Your task to perform on an android device: Play the last video I watched on Youtube Image 0: 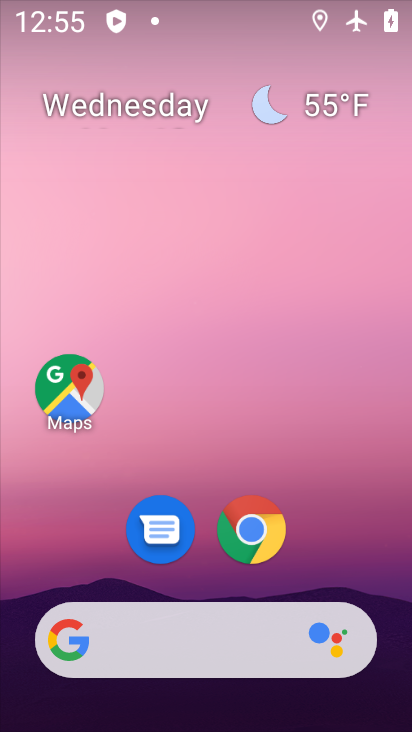
Step 0: drag from (163, 728) to (173, 216)
Your task to perform on an android device: Play the last video I watched on Youtube Image 1: 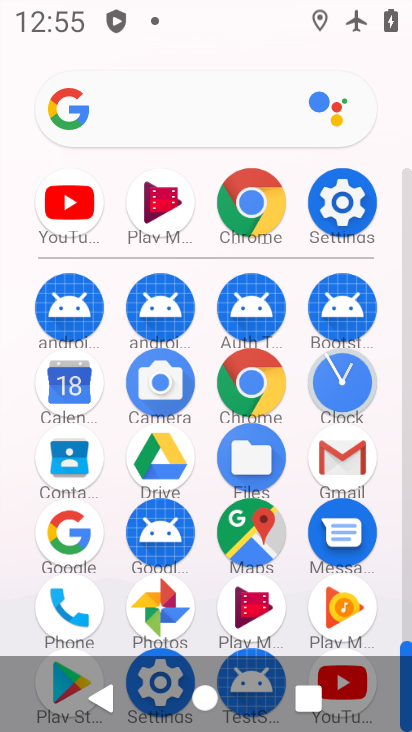
Step 1: drag from (378, 629) to (356, 398)
Your task to perform on an android device: Play the last video I watched on Youtube Image 2: 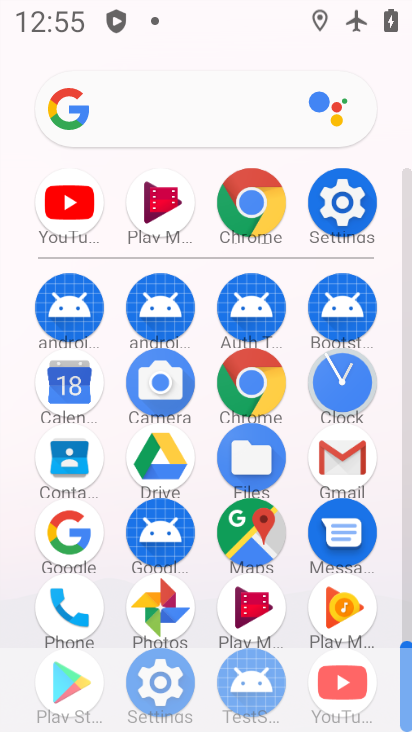
Step 2: click (345, 685)
Your task to perform on an android device: Play the last video I watched on Youtube Image 3: 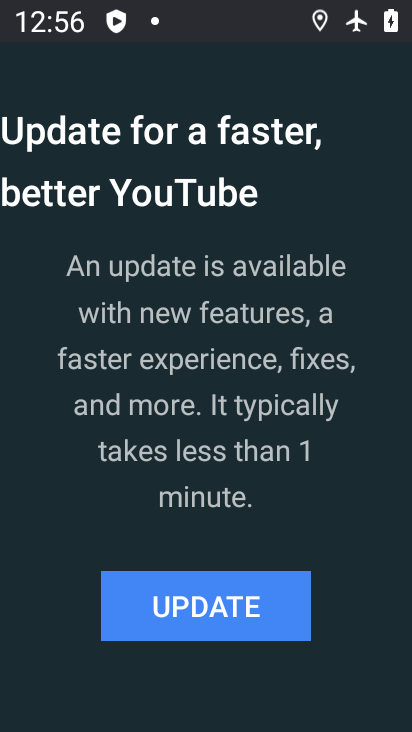
Step 3: click (195, 593)
Your task to perform on an android device: Play the last video I watched on Youtube Image 4: 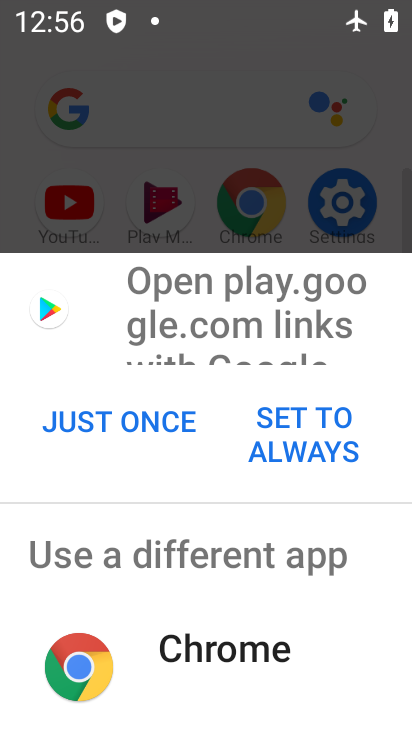
Step 4: click (128, 418)
Your task to perform on an android device: Play the last video I watched on Youtube Image 5: 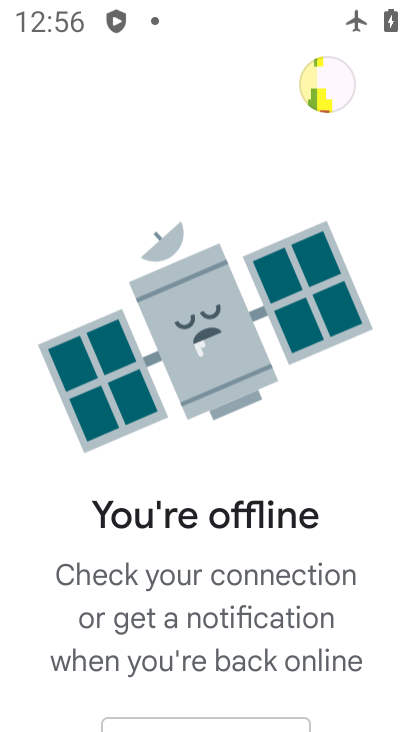
Step 5: drag from (255, 672) to (252, 323)
Your task to perform on an android device: Play the last video I watched on Youtube Image 6: 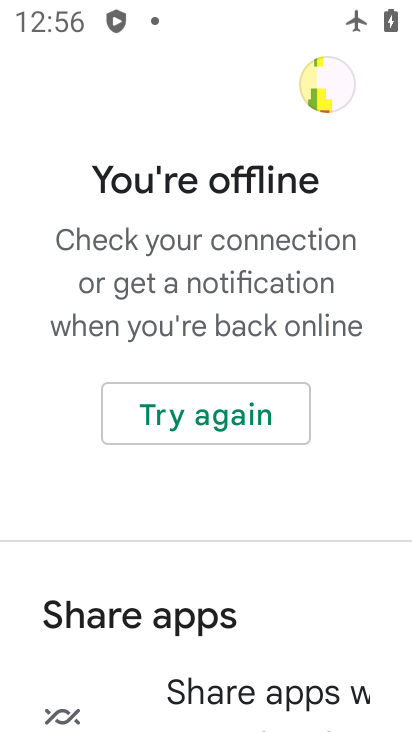
Step 6: click (215, 417)
Your task to perform on an android device: Play the last video I watched on Youtube Image 7: 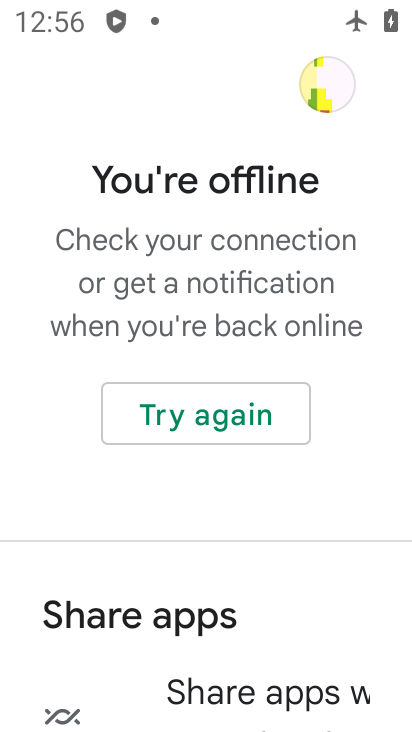
Step 7: task complete